Your task to perform on an android device: What's the weather today? Image 0: 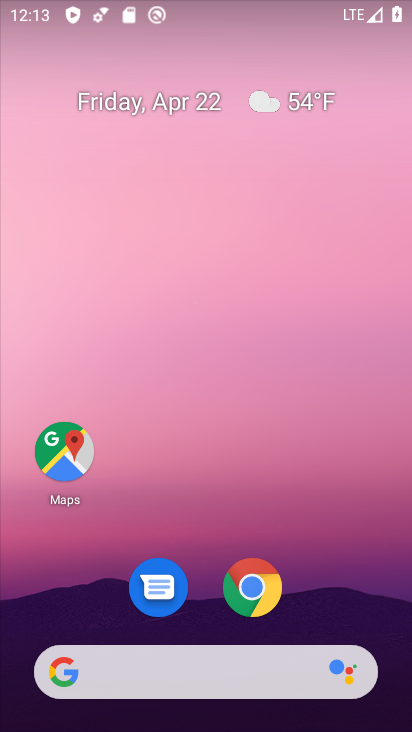
Step 0: click (267, 95)
Your task to perform on an android device: What's the weather today? Image 1: 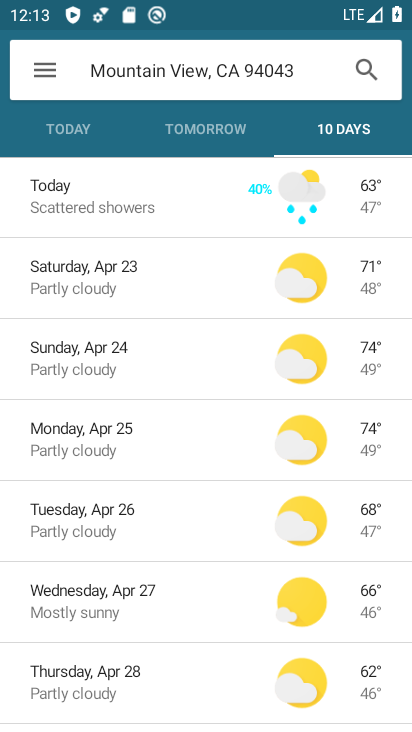
Step 1: click (68, 124)
Your task to perform on an android device: What's the weather today? Image 2: 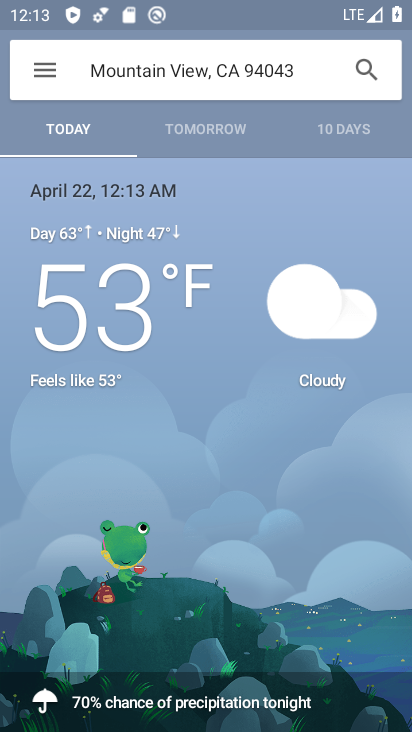
Step 2: task complete